Your task to perform on an android device: turn off improve location accuracy Image 0: 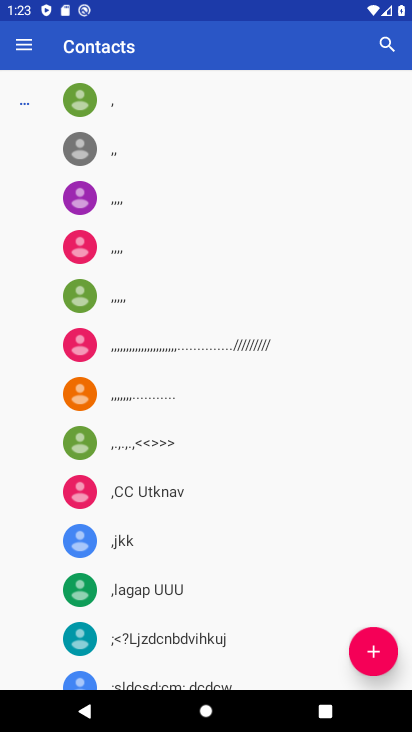
Step 0: press home button
Your task to perform on an android device: turn off improve location accuracy Image 1: 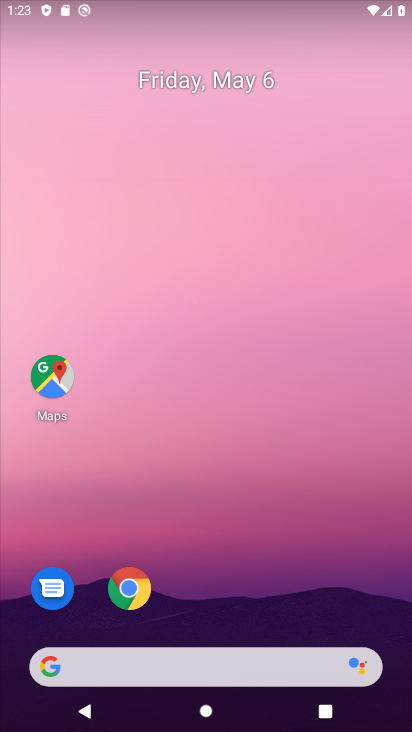
Step 1: drag from (344, 467) to (361, 100)
Your task to perform on an android device: turn off improve location accuracy Image 2: 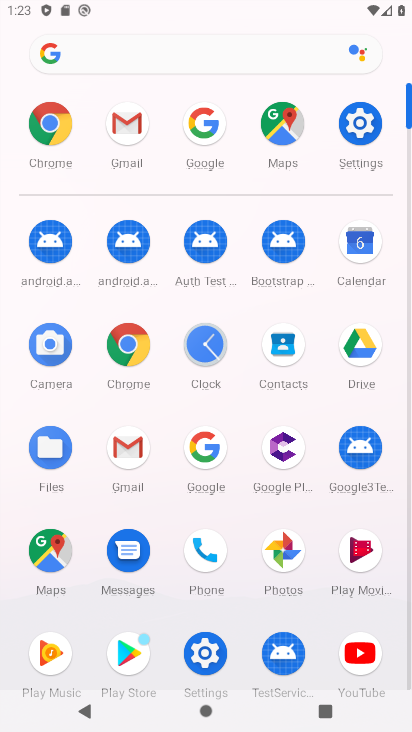
Step 2: click (206, 645)
Your task to perform on an android device: turn off improve location accuracy Image 3: 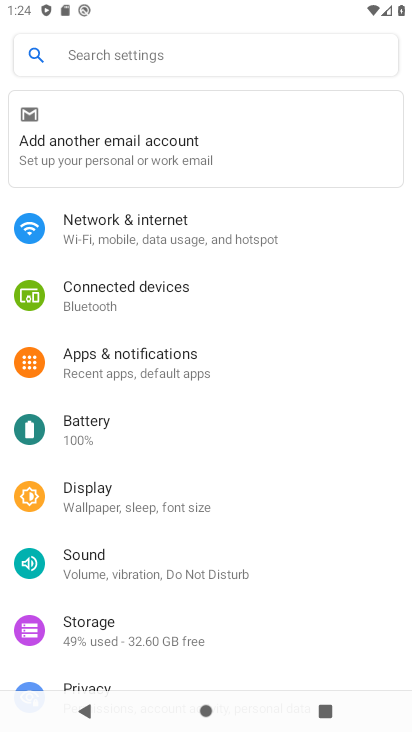
Step 3: drag from (248, 637) to (251, 307)
Your task to perform on an android device: turn off improve location accuracy Image 4: 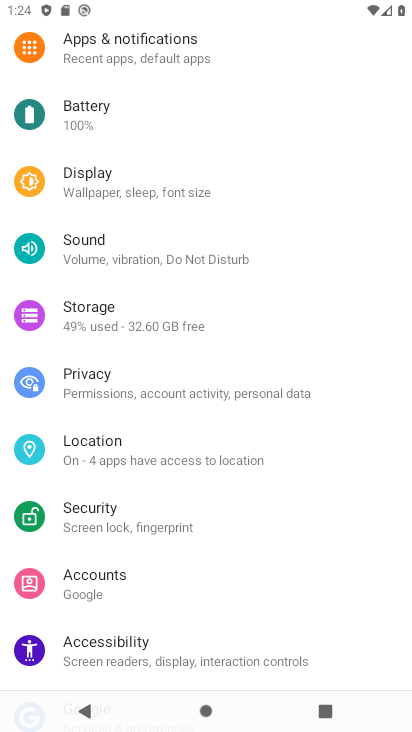
Step 4: click (139, 463)
Your task to perform on an android device: turn off improve location accuracy Image 5: 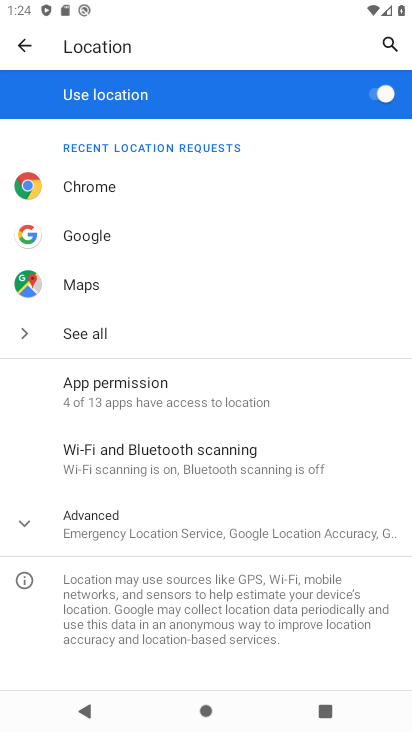
Step 5: click (278, 532)
Your task to perform on an android device: turn off improve location accuracy Image 6: 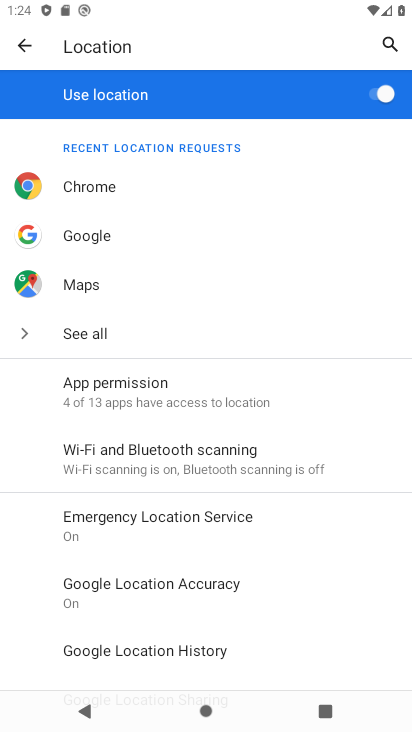
Step 6: click (221, 585)
Your task to perform on an android device: turn off improve location accuracy Image 7: 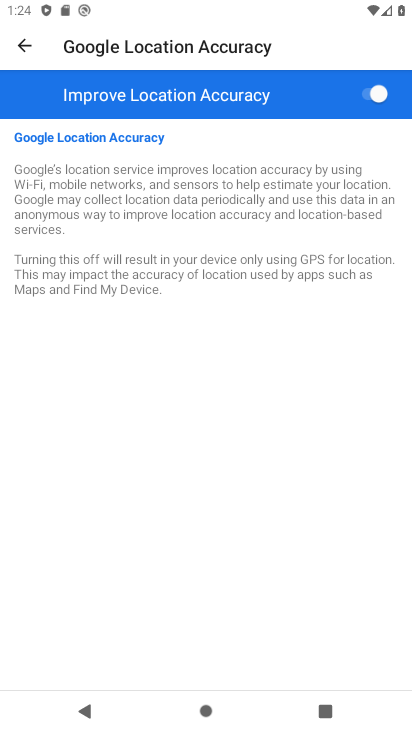
Step 7: click (369, 98)
Your task to perform on an android device: turn off improve location accuracy Image 8: 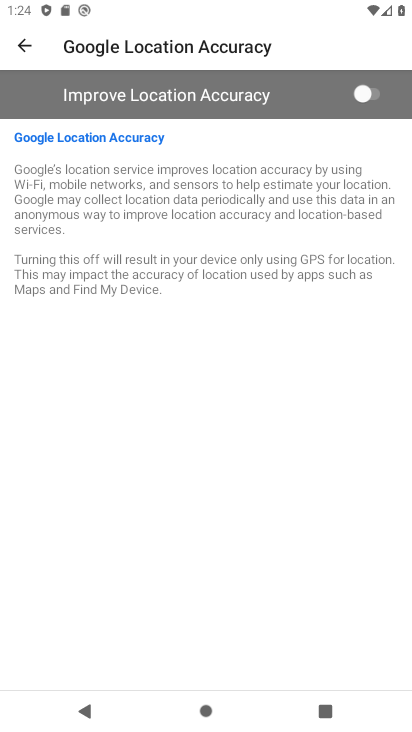
Step 8: task complete